Your task to perform on an android device: clear history in the chrome app Image 0: 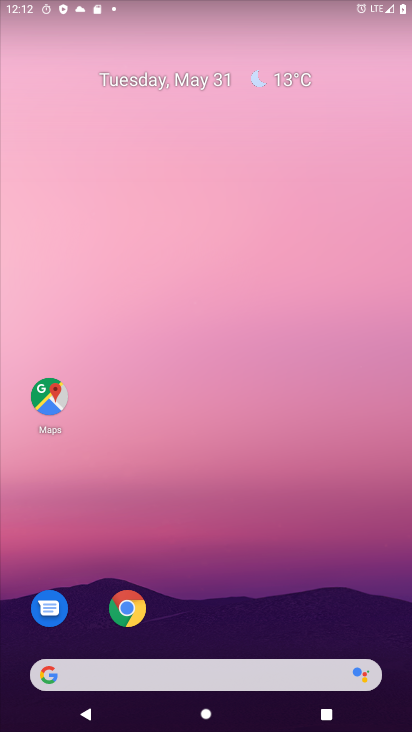
Step 0: click (122, 612)
Your task to perform on an android device: clear history in the chrome app Image 1: 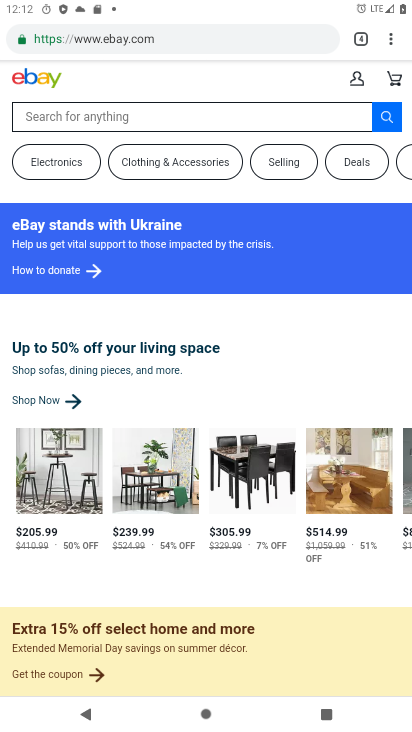
Step 1: click (396, 36)
Your task to perform on an android device: clear history in the chrome app Image 2: 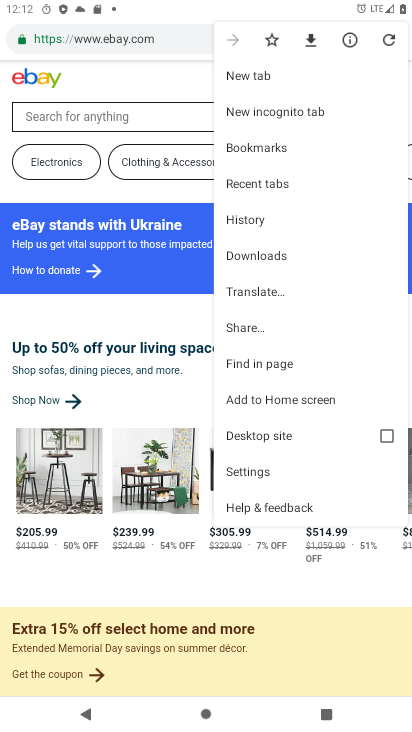
Step 2: click (234, 474)
Your task to perform on an android device: clear history in the chrome app Image 3: 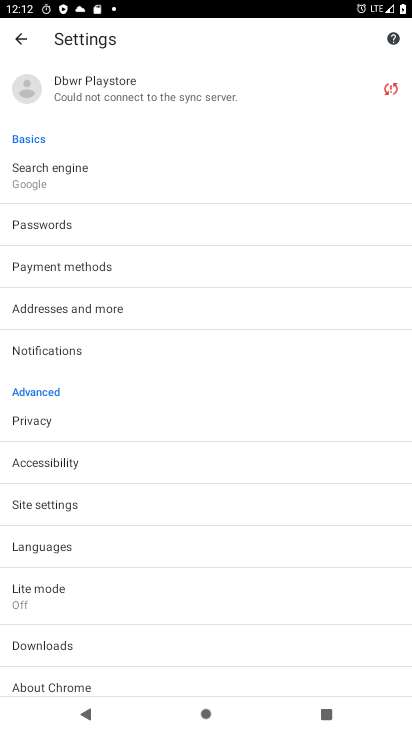
Step 3: click (42, 421)
Your task to perform on an android device: clear history in the chrome app Image 4: 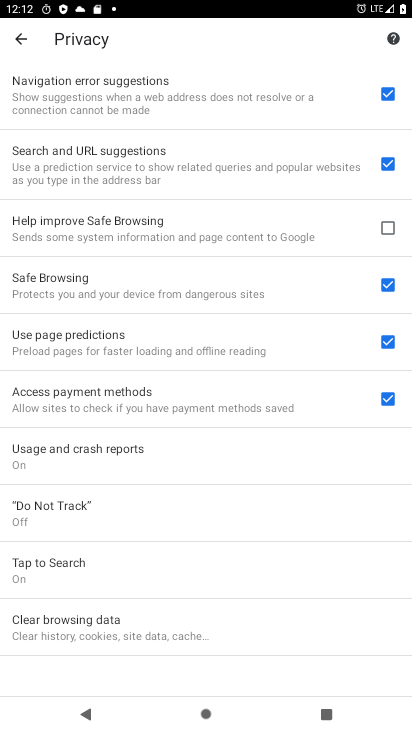
Step 4: click (85, 629)
Your task to perform on an android device: clear history in the chrome app Image 5: 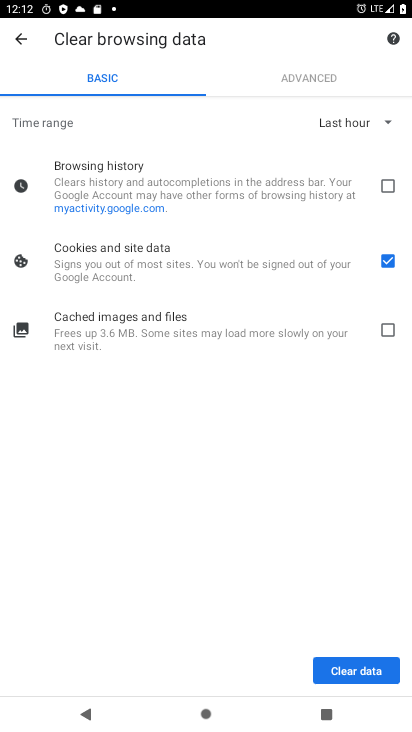
Step 5: click (387, 182)
Your task to perform on an android device: clear history in the chrome app Image 6: 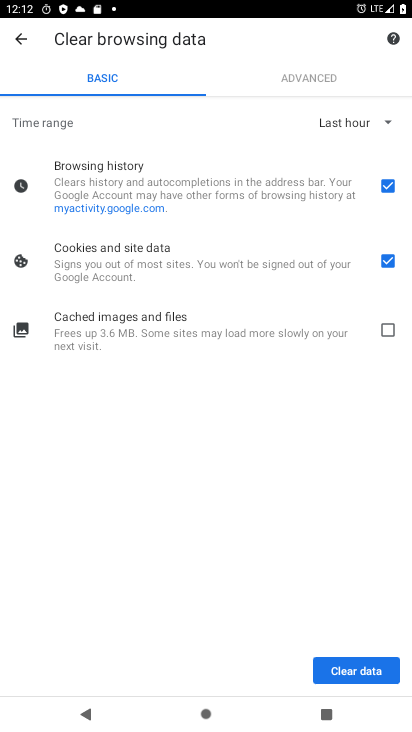
Step 6: click (383, 253)
Your task to perform on an android device: clear history in the chrome app Image 7: 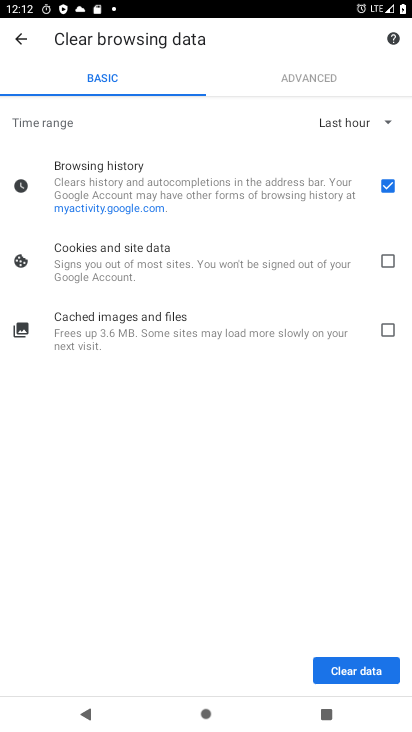
Step 7: click (358, 674)
Your task to perform on an android device: clear history in the chrome app Image 8: 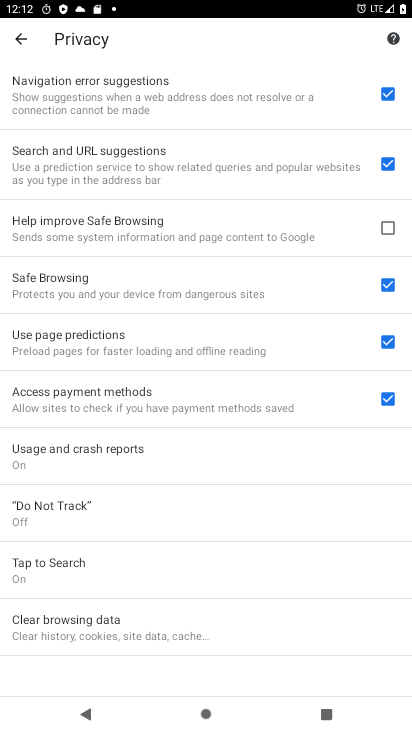
Step 8: task complete